Your task to perform on an android device: open app "Facebook Lite" (install if not already installed) Image 0: 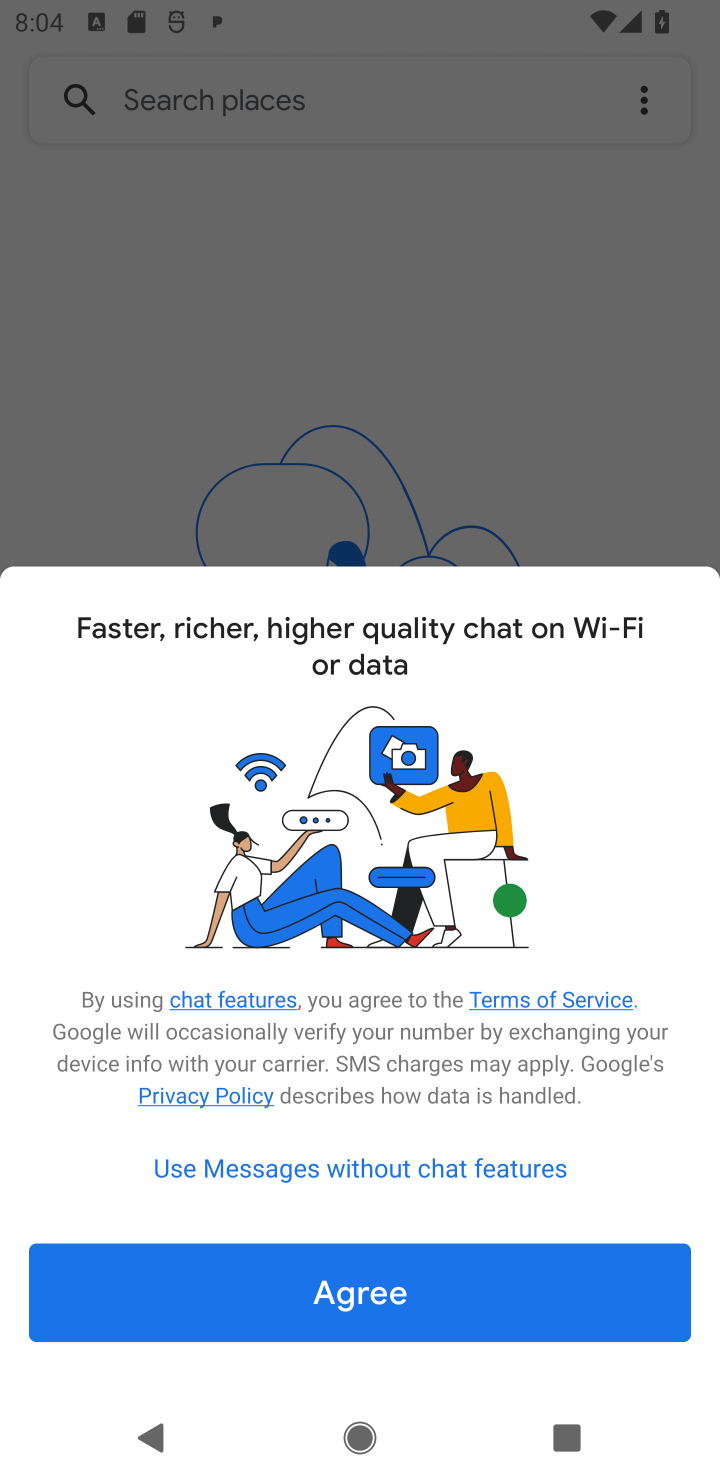
Step 0: press home button
Your task to perform on an android device: open app "Facebook Lite" (install if not already installed) Image 1: 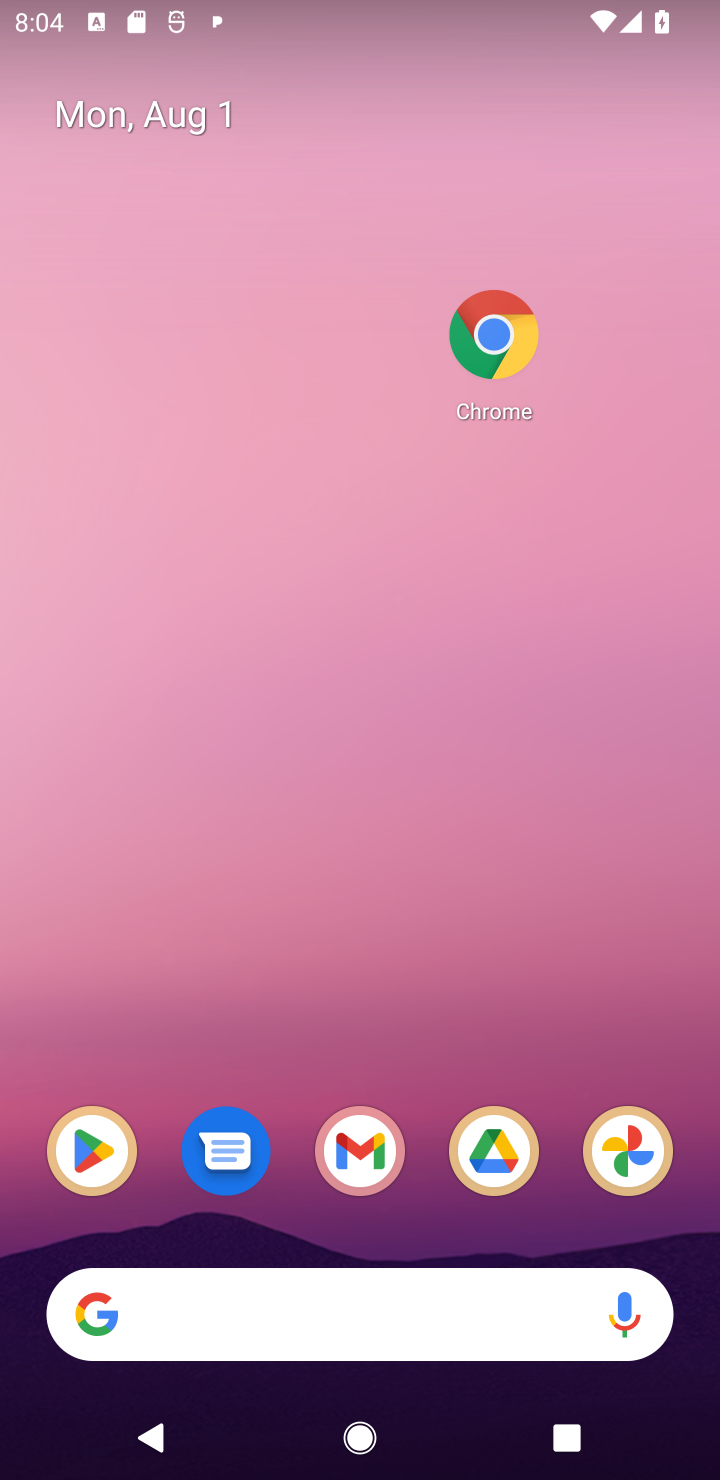
Step 1: click (98, 1157)
Your task to perform on an android device: open app "Facebook Lite" (install if not already installed) Image 2: 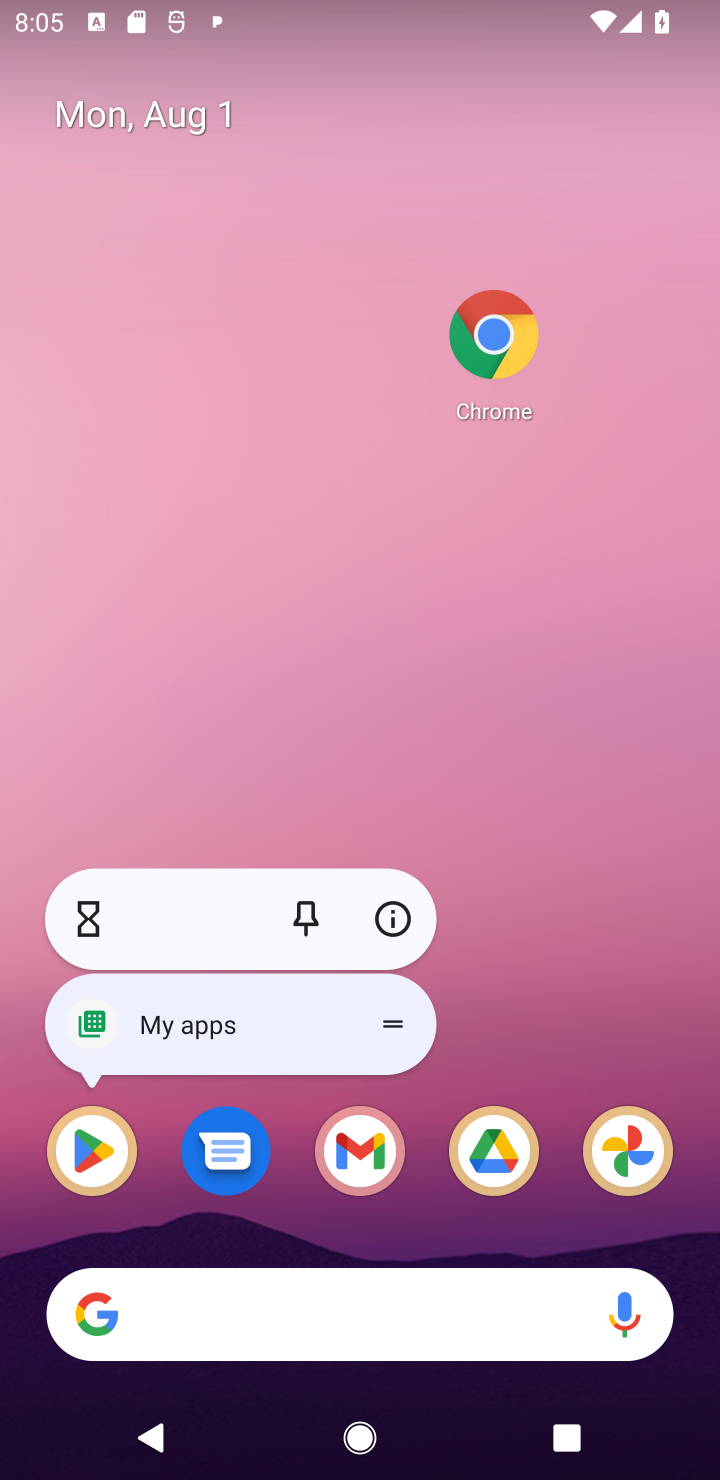
Step 2: click (108, 1163)
Your task to perform on an android device: open app "Facebook Lite" (install if not already installed) Image 3: 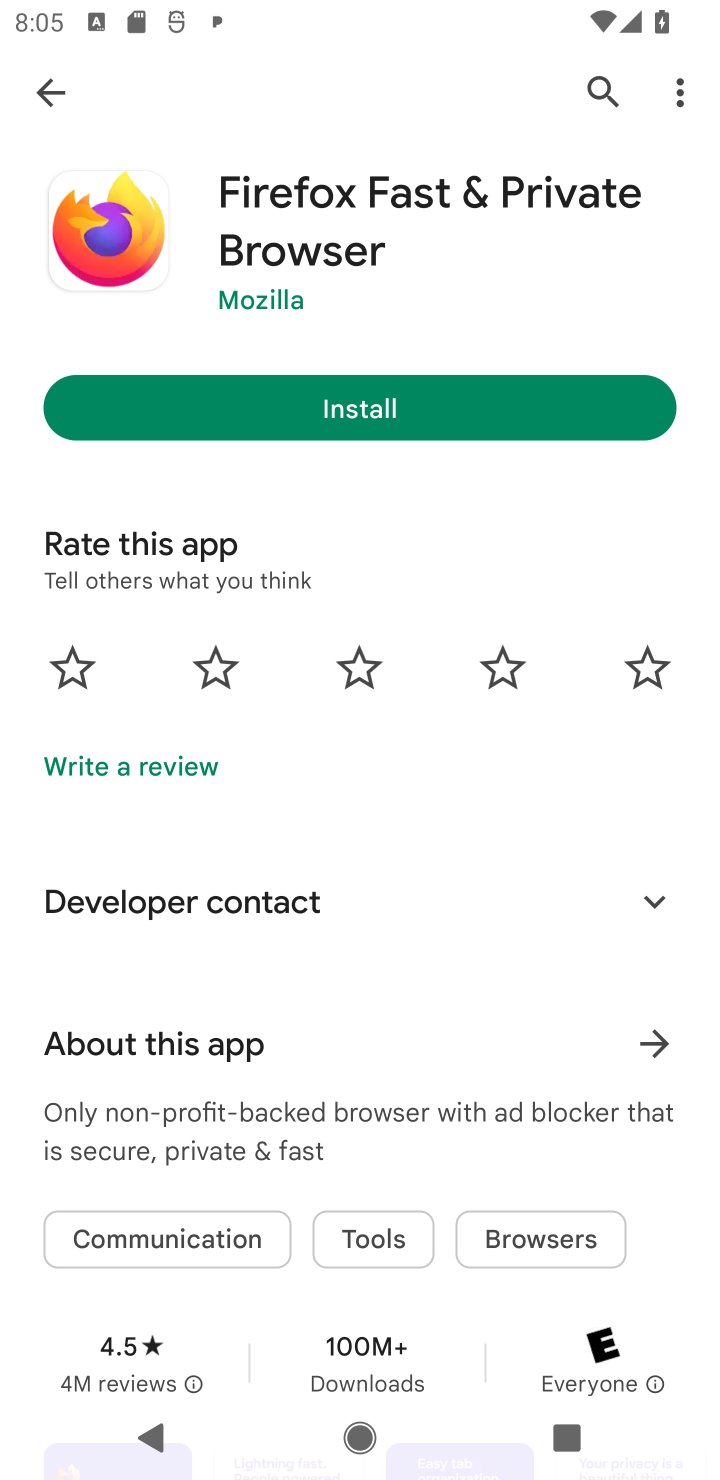
Step 3: click (593, 85)
Your task to perform on an android device: open app "Facebook Lite" (install if not already installed) Image 4: 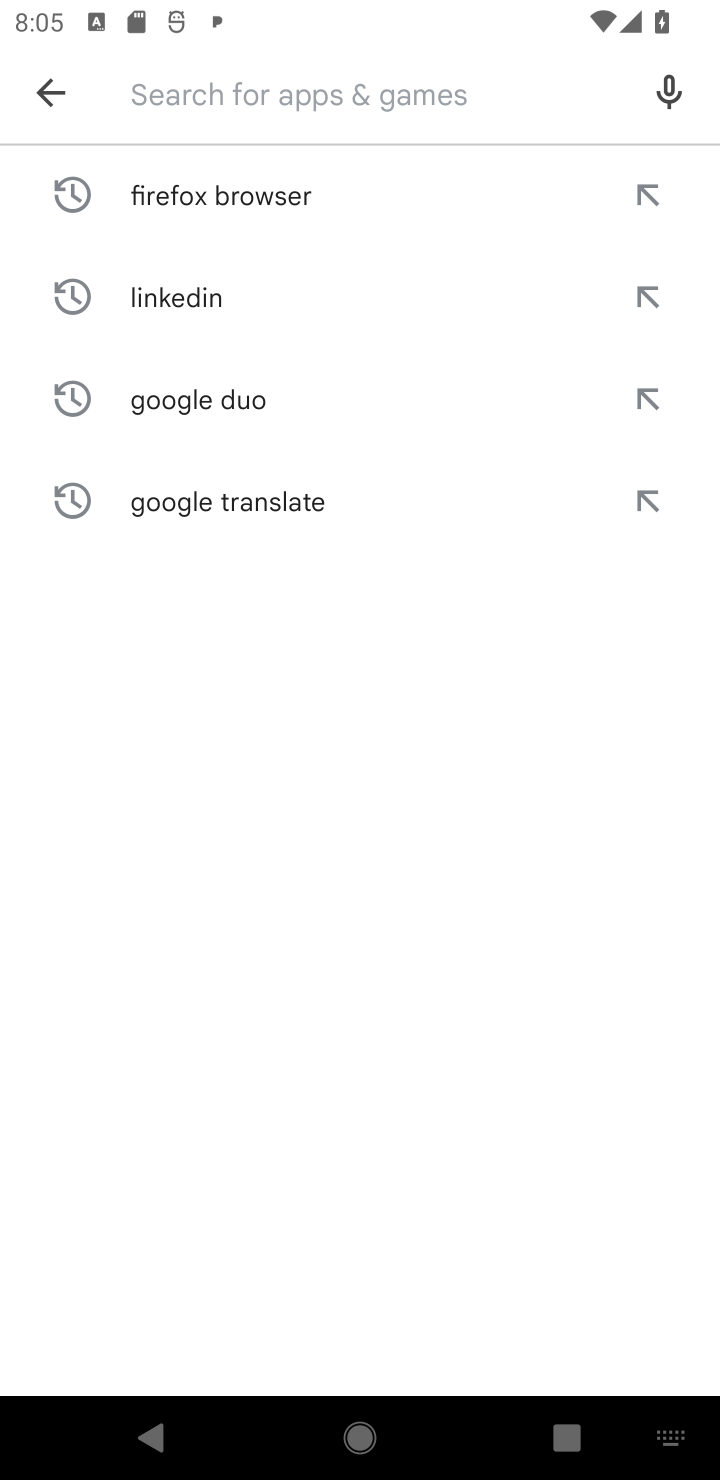
Step 4: type "Facebook Lite"
Your task to perform on an android device: open app "Facebook Lite" (install if not already installed) Image 5: 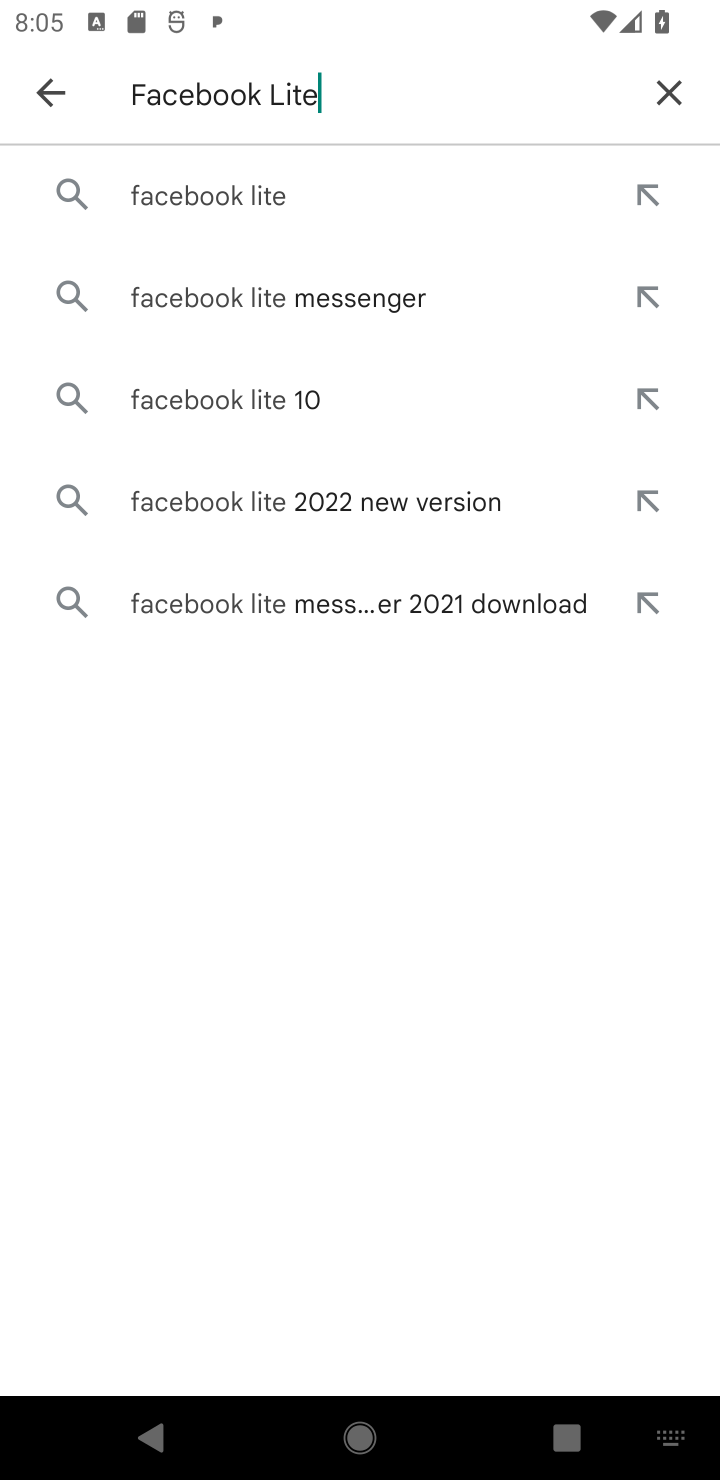
Step 5: click (224, 202)
Your task to perform on an android device: open app "Facebook Lite" (install if not already installed) Image 6: 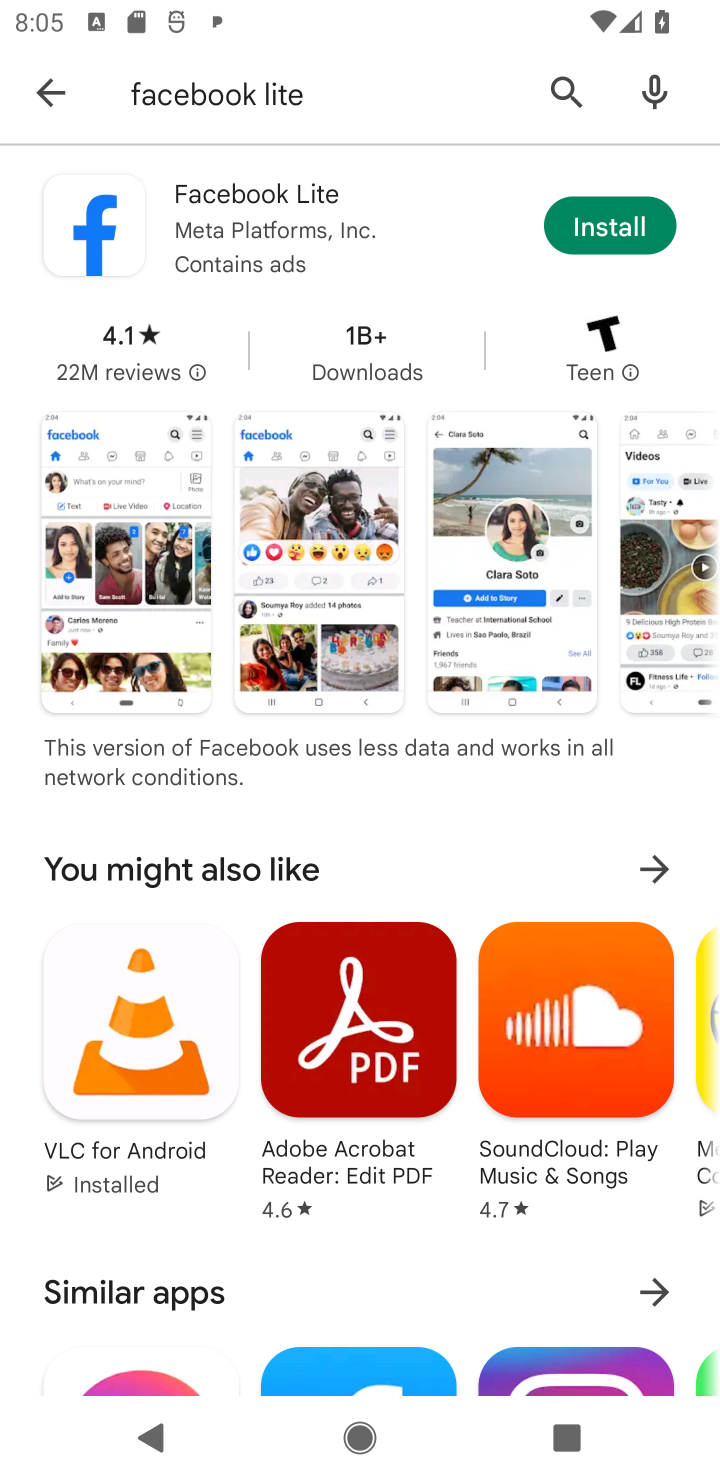
Step 6: click (647, 249)
Your task to perform on an android device: open app "Facebook Lite" (install if not already installed) Image 7: 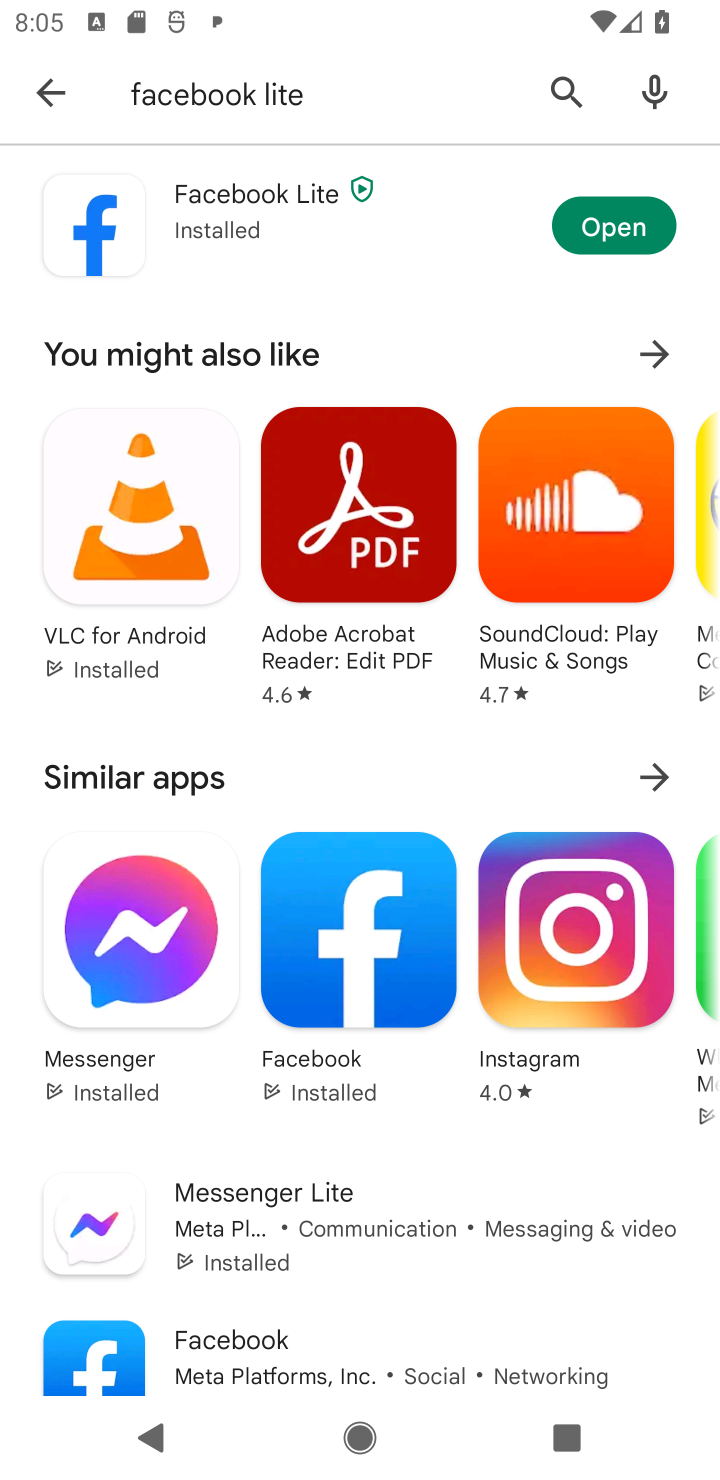
Step 7: click (626, 217)
Your task to perform on an android device: open app "Facebook Lite" (install if not already installed) Image 8: 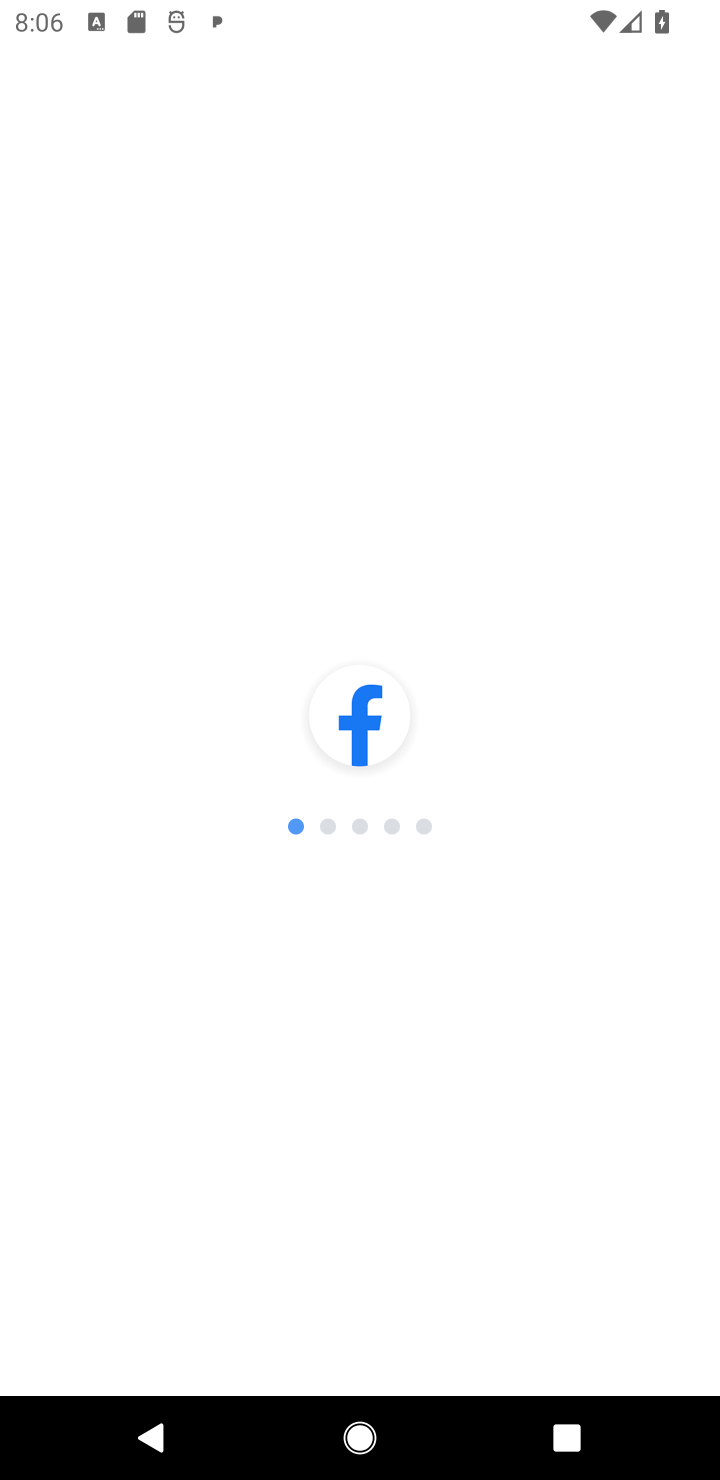
Step 8: task complete